Your task to perform on an android device: open a bookmark in the chrome app Image 0: 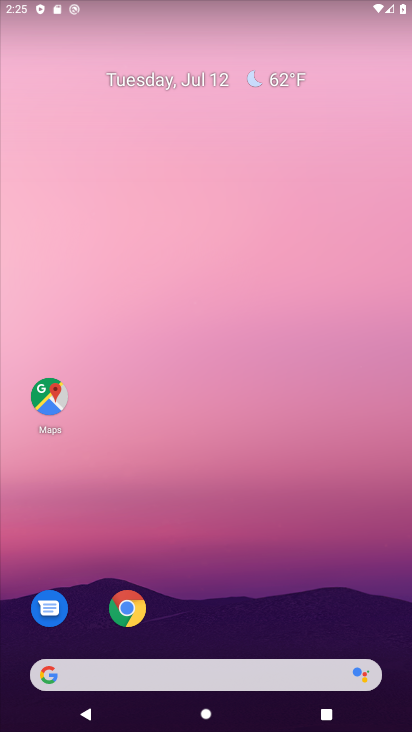
Step 0: press home button
Your task to perform on an android device: open a bookmark in the chrome app Image 1: 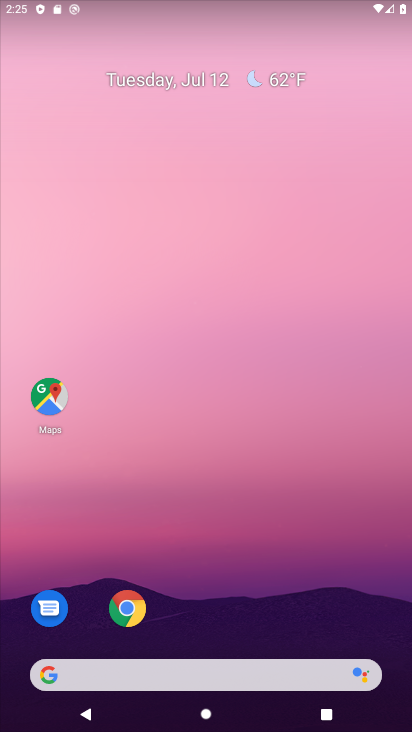
Step 1: click (132, 620)
Your task to perform on an android device: open a bookmark in the chrome app Image 2: 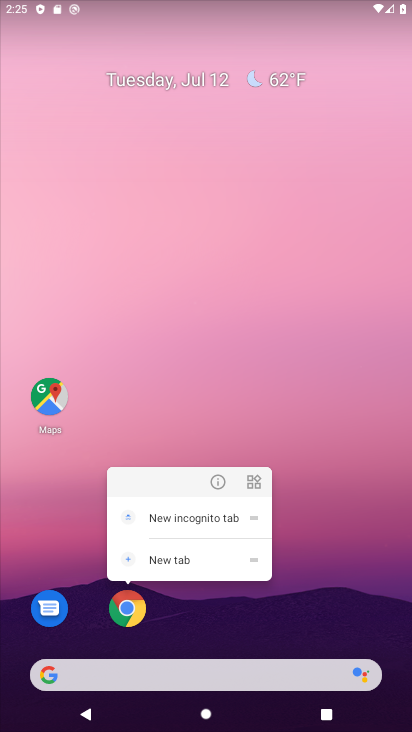
Step 2: click (127, 616)
Your task to perform on an android device: open a bookmark in the chrome app Image 3: 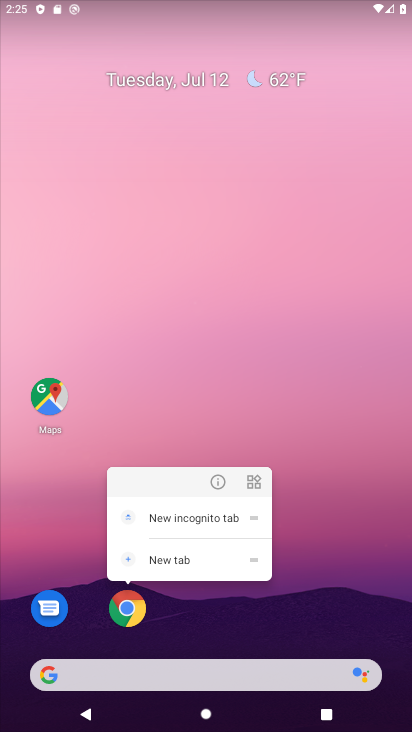
Step 3: click (127, 608)
Your task to perform on an android device: open a bookmark in the chrome app Image 4: 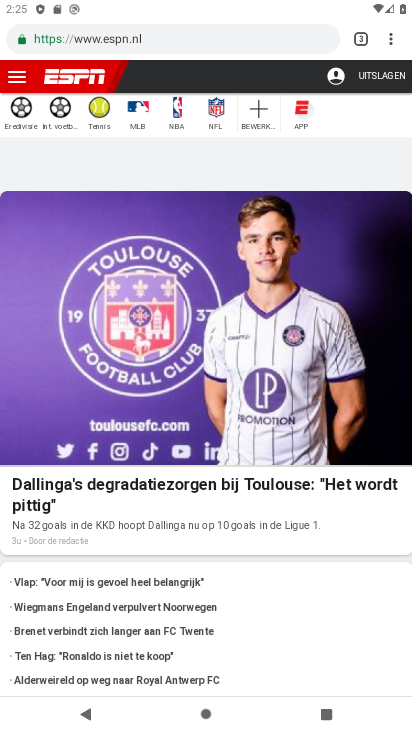
Step 4: task complete